Your task to perform on an android device: Open settings Image 0: 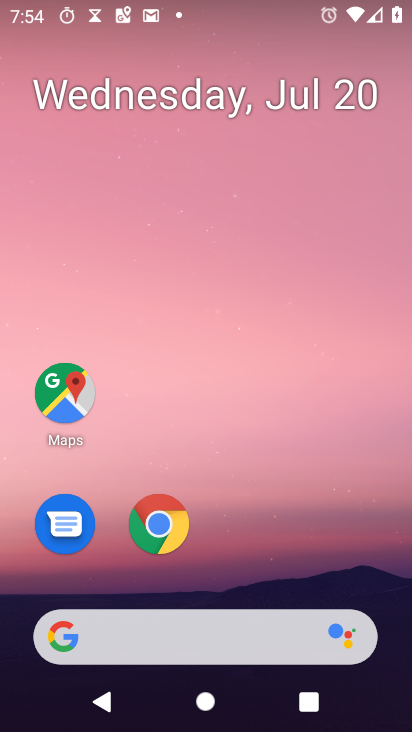
Step 0: drag from (176, 602) to (287, 179)
Your task to perform on an android device: Open settings Image 1: 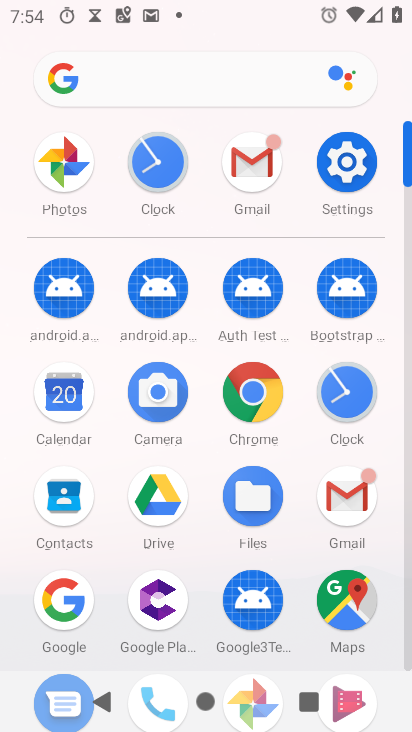
Step 1: click (350, 163)
Your task to perform on an android device: Open settings Image 2: 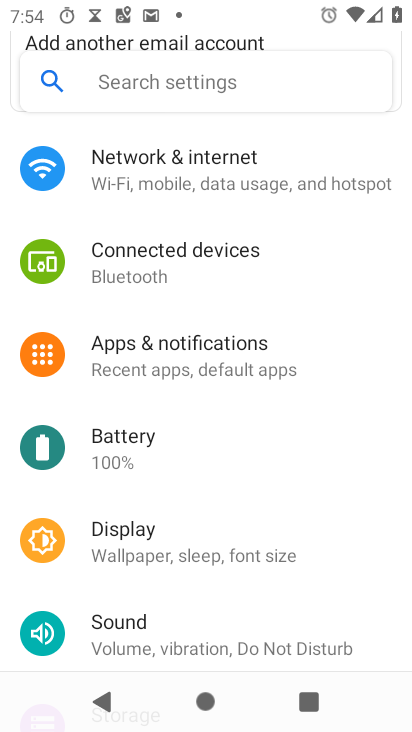
Step 2: task complete